Your task to perform on an android device: Show the shopping cart on costco.com. Image 0: 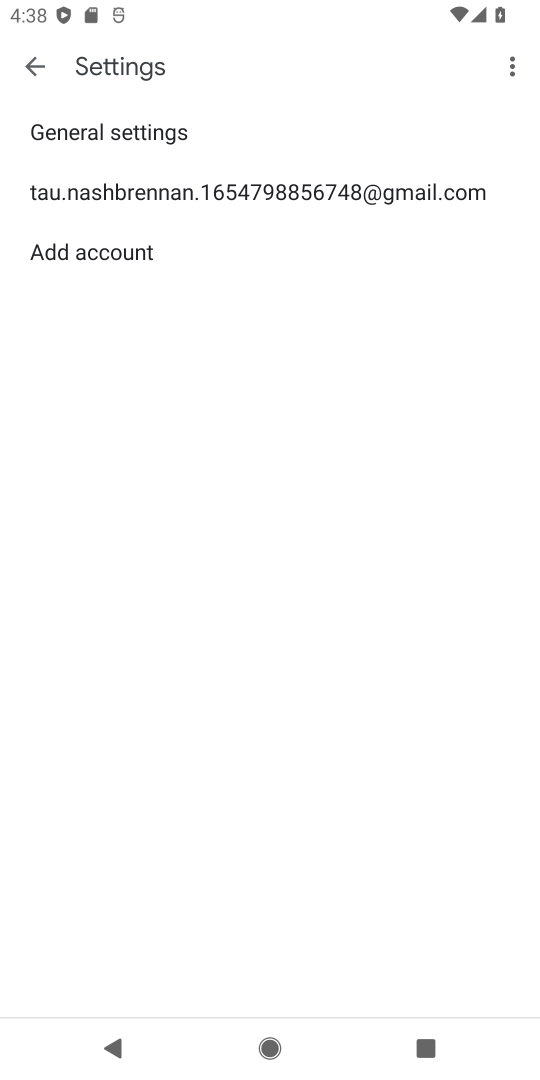
Step 0: press home button
Your task to perform on an android device: Show the shopping cart on costco.com. Image 1: 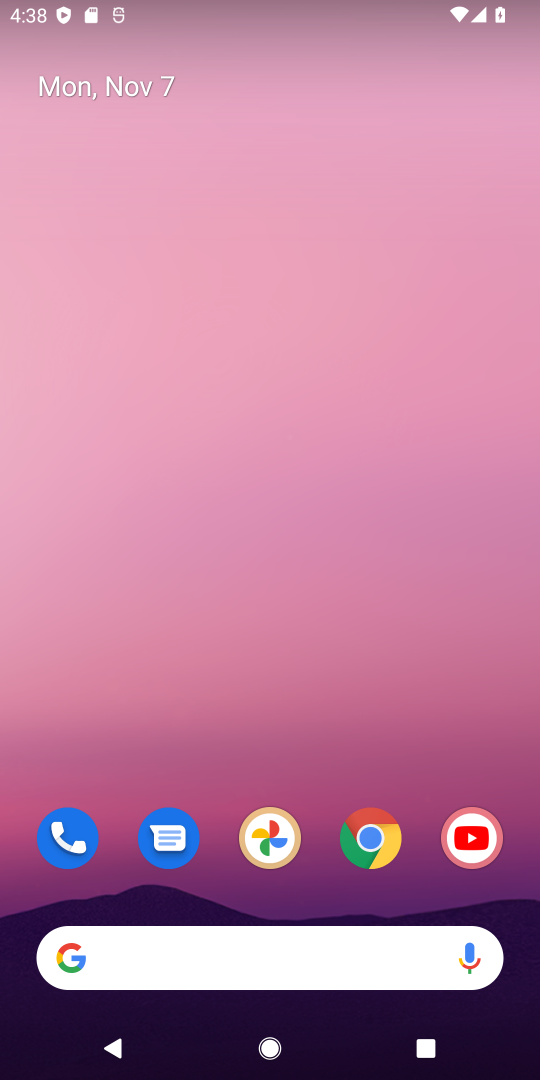
Step 1: click (377, 843)
Your task to perform on an android device: Show the shopping cart on costco.com. Image 2: 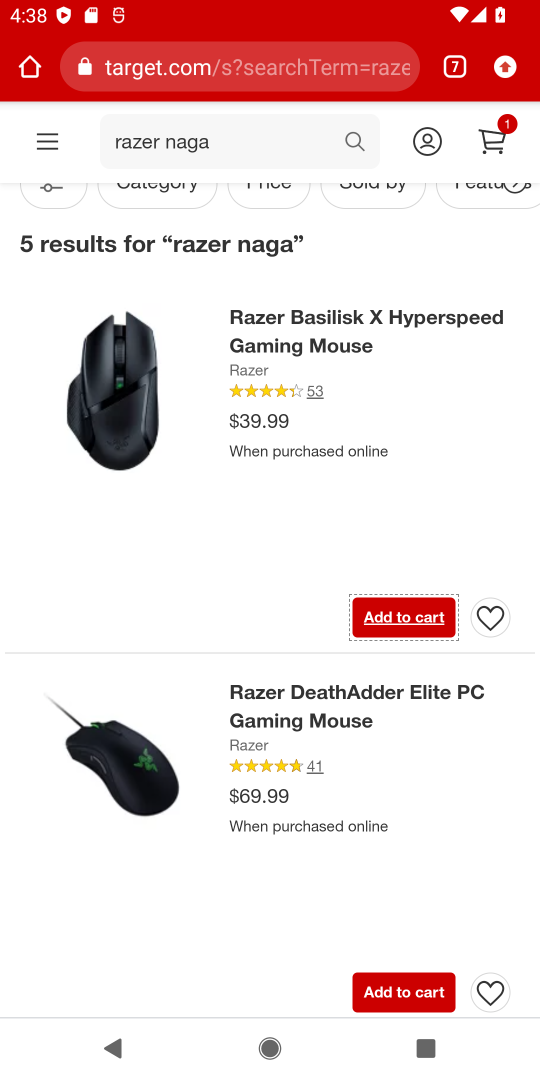
Step 2: click (456, 64)
Your task to perform on an android device: Show the shopping cart on costco.com. Image 3: 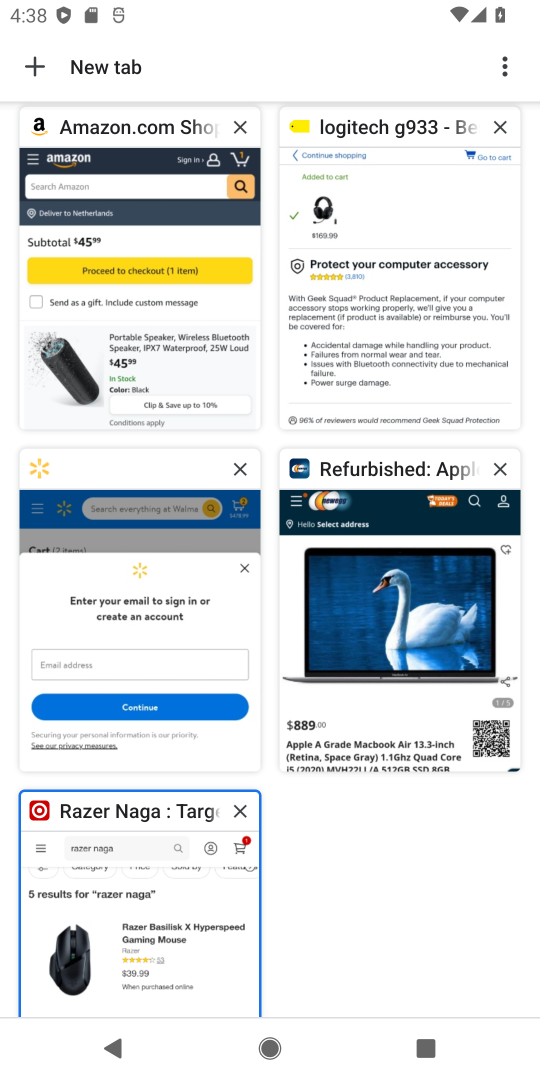
Step 3: drag from (367, 356) to (373, 771)
Your task to perform on an android device: Show the shopping cart on costco.com. Image 4: 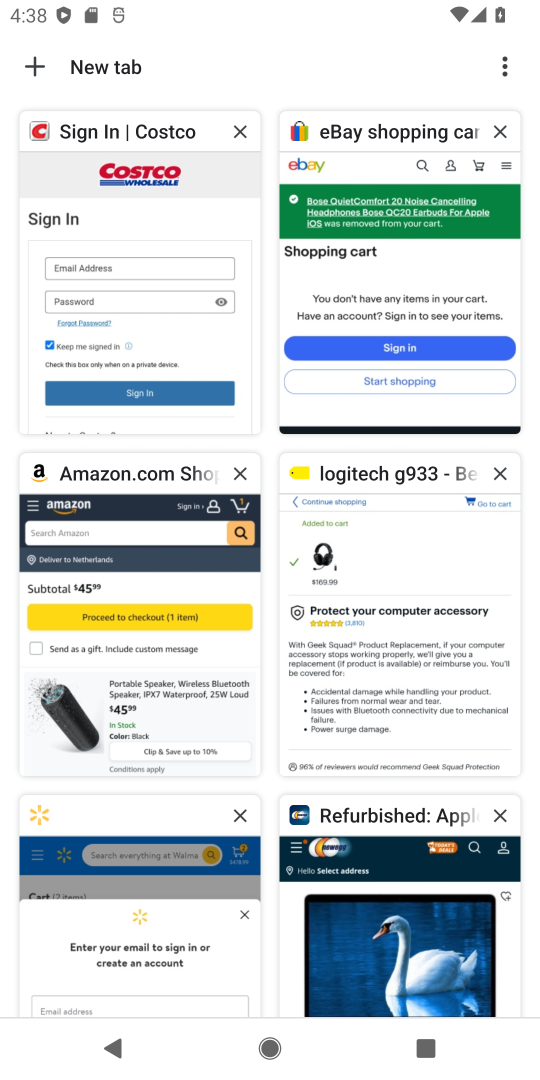
Step 4: click (141, 252)
Your task to perform on an android device: Show the shopping cart on costco.com. Image 5: 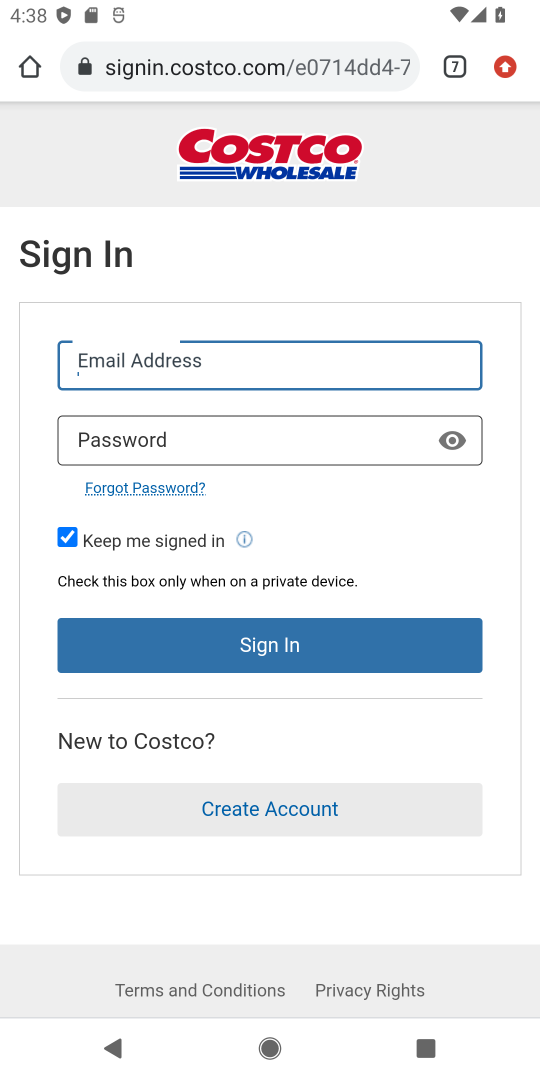
Step 5: task complete